Your task to perform on an android device: Do I have any events today? Image 0: 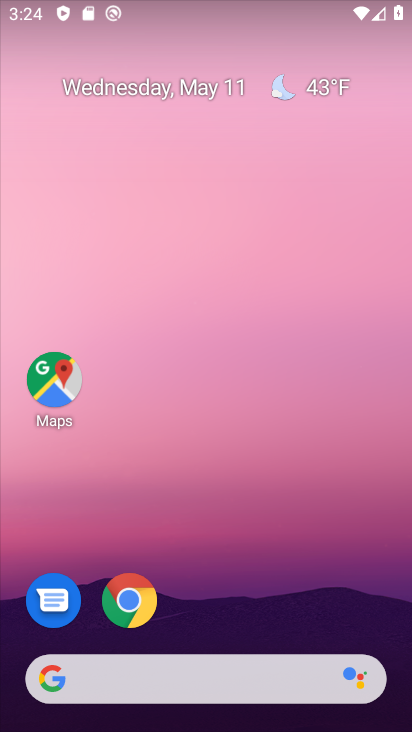
Step 0: drag from (312, 617) to (303, 16)
Your task to perform on an android device: Do I have any events today? Image 1: 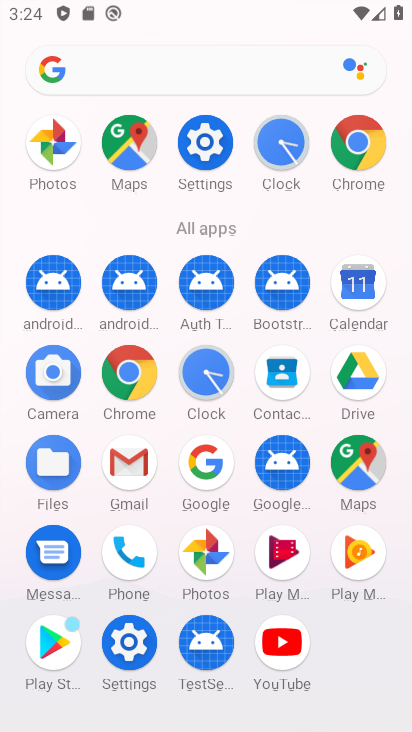
Step 1: click (349, 295)
Your task to perform on an android device: Do I have any events today? Image 2: 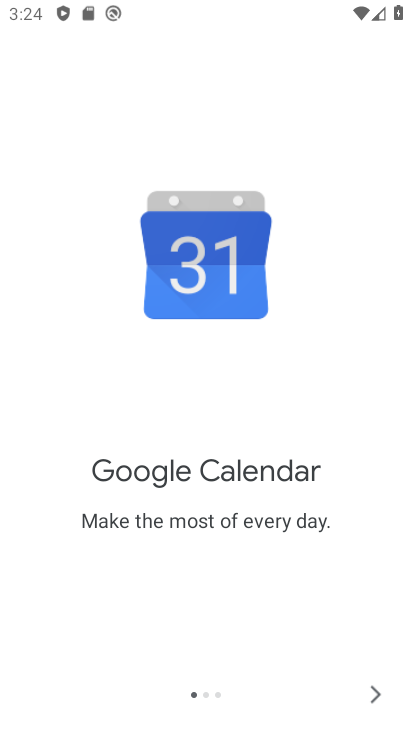
Step 2: click (372, 695)
Your task to perform on an android device: Do I have any events today? Image 3: 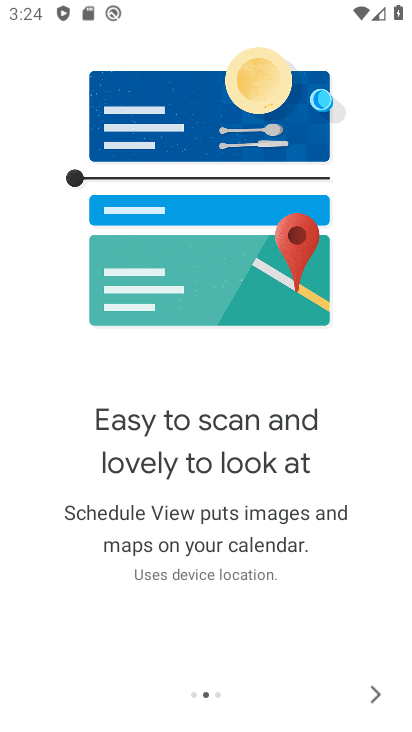
Step 3: click (372, 695)
Your task to perform on an android device: Do I have any events today? Image 4: 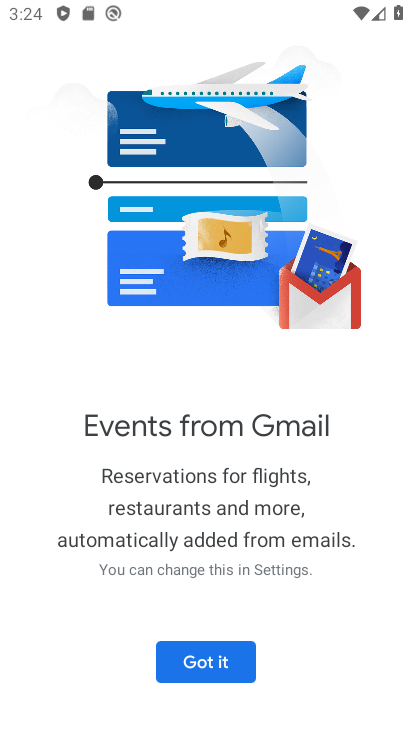
Step 4: click (209, 666)
Your task to perform on an android device: Do I have any events today? Image 5: 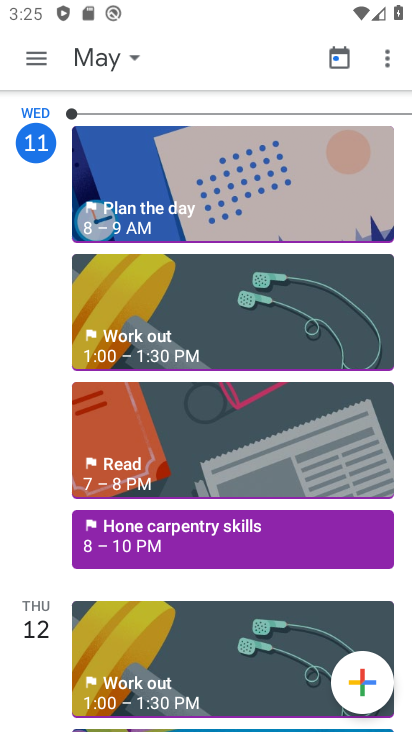
Step 5: click (156, 540)
Your task to perform on an android device: Do I have any events today? Image 6: 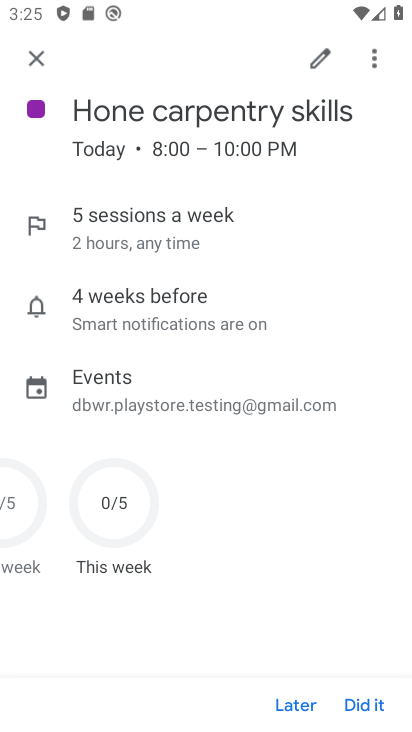
Step 6: task complete